Your task to perform on an android device: Open ESPN.com Image 0: 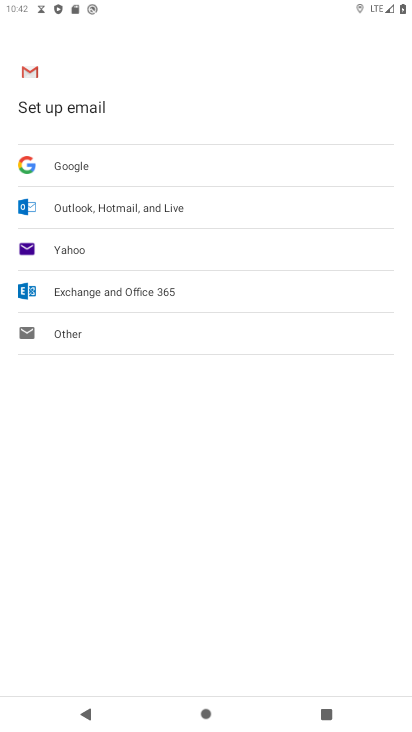
Step 0: press home button
Your task to perform on an android device: Open ESPN.com Image 1: 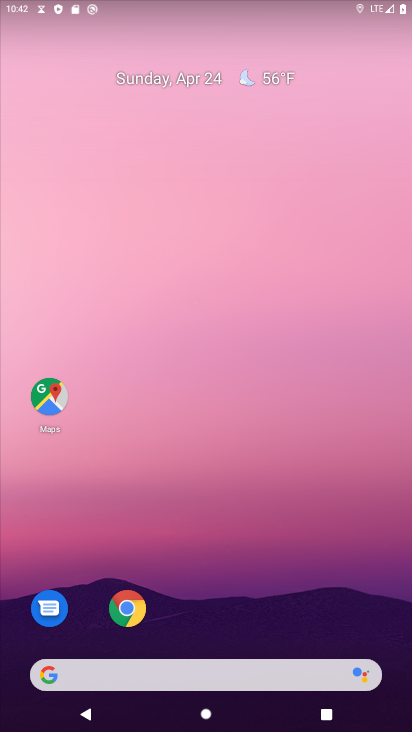
Step 1: drag from (188, 658) to (161, 0)
Your task to perform on an android device: Open ESPN.com Image 2: 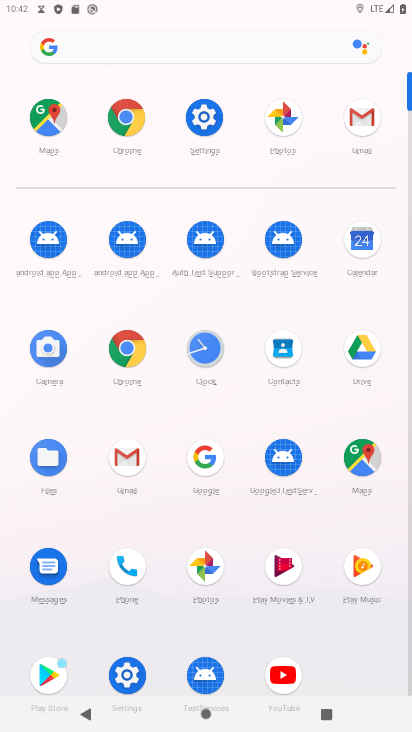
Step 2: click (116, 350)
Your task to perform on an android device: Open ESPN.com Image 3: 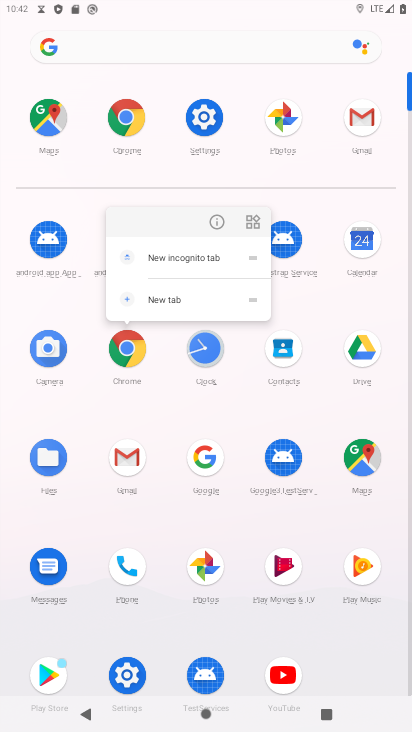
Step 3: click (137, 341)
Your task to perform on an android device: Open ESPN.com Image 4: 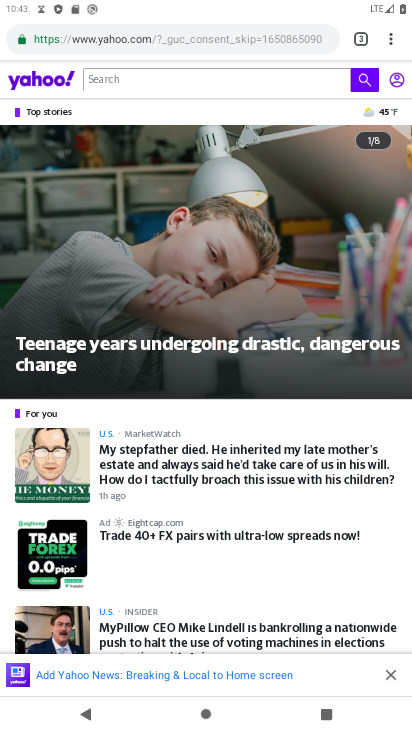
Step 4: click (160, 39)
Your task to perform on an android device: Open ESPN.com Image 5: 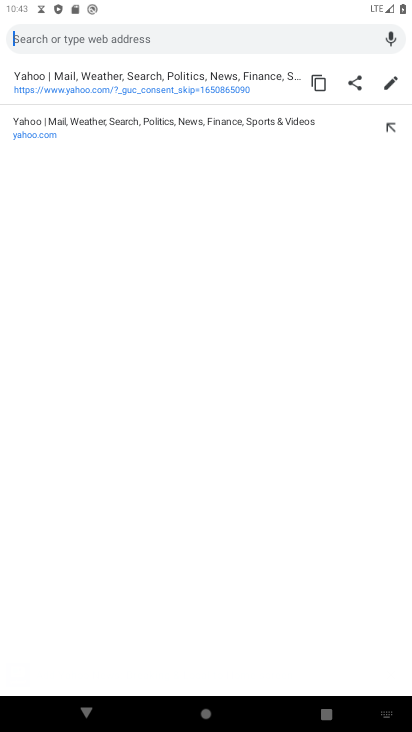
Step 5: type "espn"
Your task to perform on an android device: Open ESPN.com Image 6: 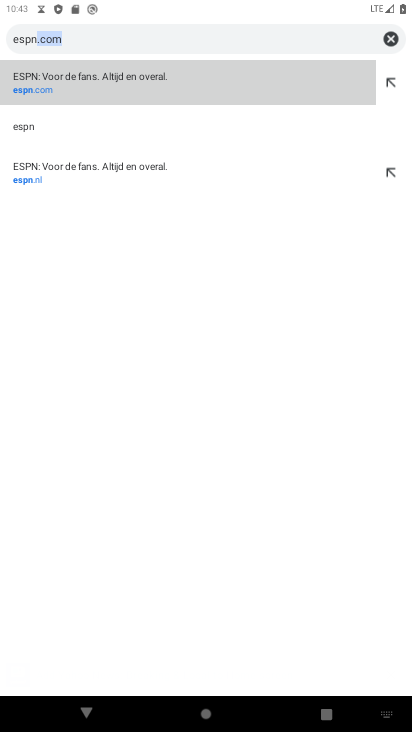
Step 6: click (148, 86)
Your task to perform on an android device: Open ESPN.com Image 7: 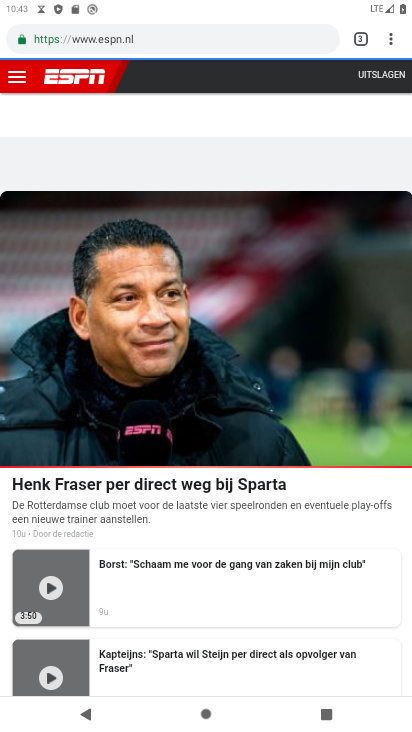
Step 7: task complete